Your task to perform on an android device: find which apps use the phone's location Image 0: 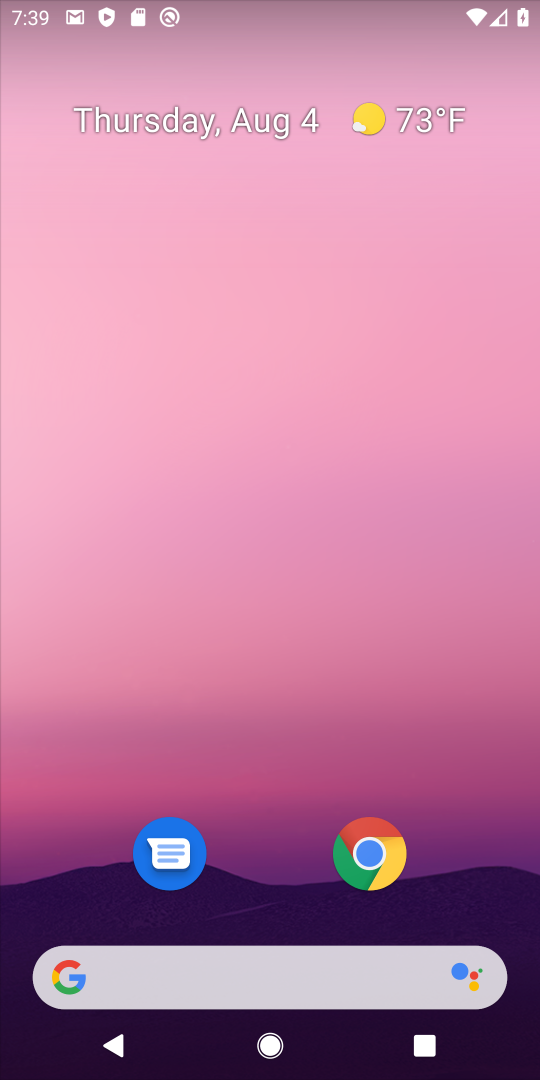
Step 0: drag from (299, 803) to (299, 365)
Your task to perform on an android device: find which apps use the phone's location Image 1: 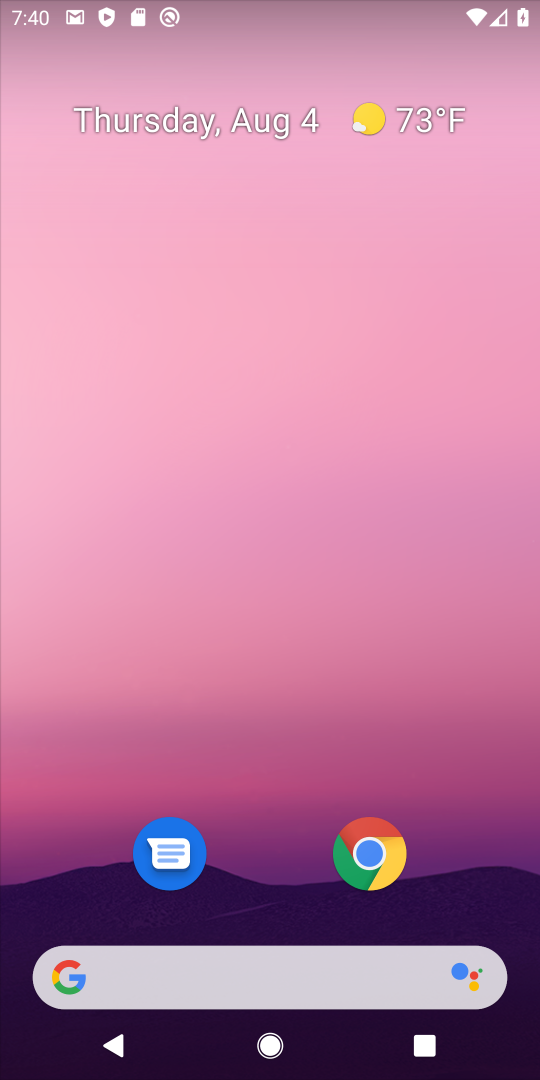
Step 1: drag from (239, 948) to (257, 255)
Your task to perform on an android device: find which apps use the phone's location Image 2: 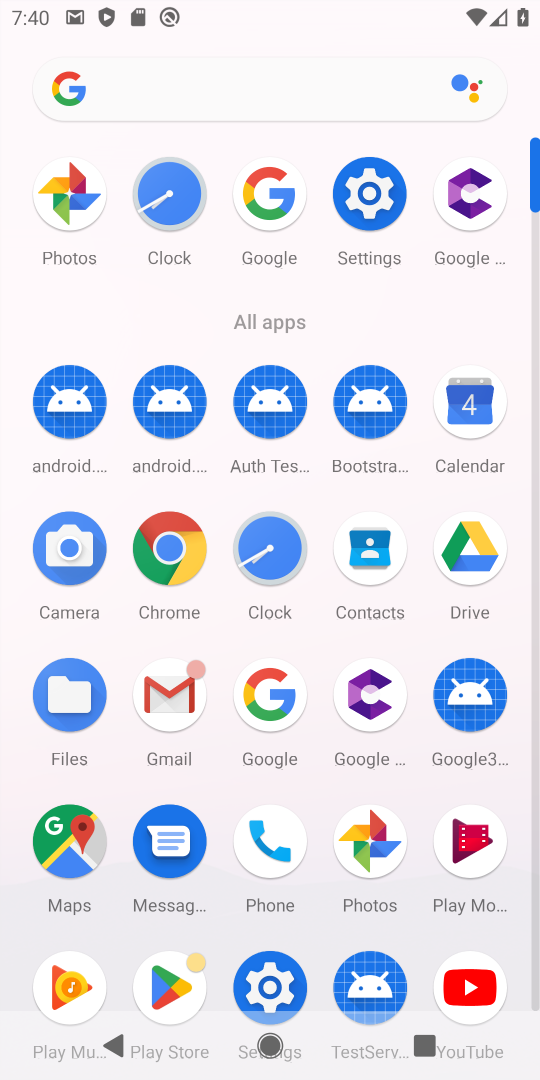
Step 2: click (271, 981)
Your task to perform on an android device: find which apps use the phone's location Image 3: 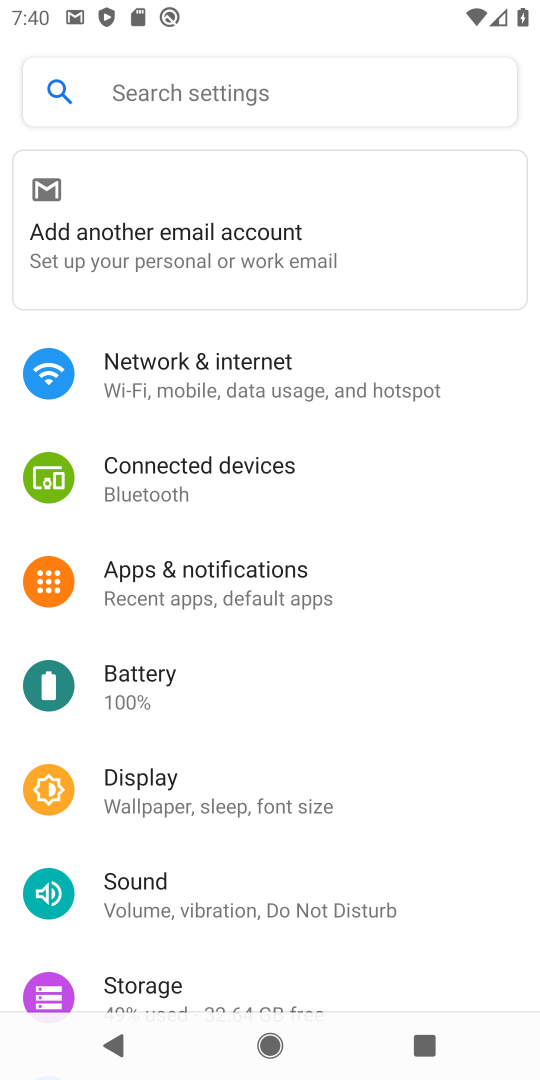
Step 3: drag from (206, 999) to (204, 480)
Your task to perform on an android device: find which apps use the phone's location Image 4: 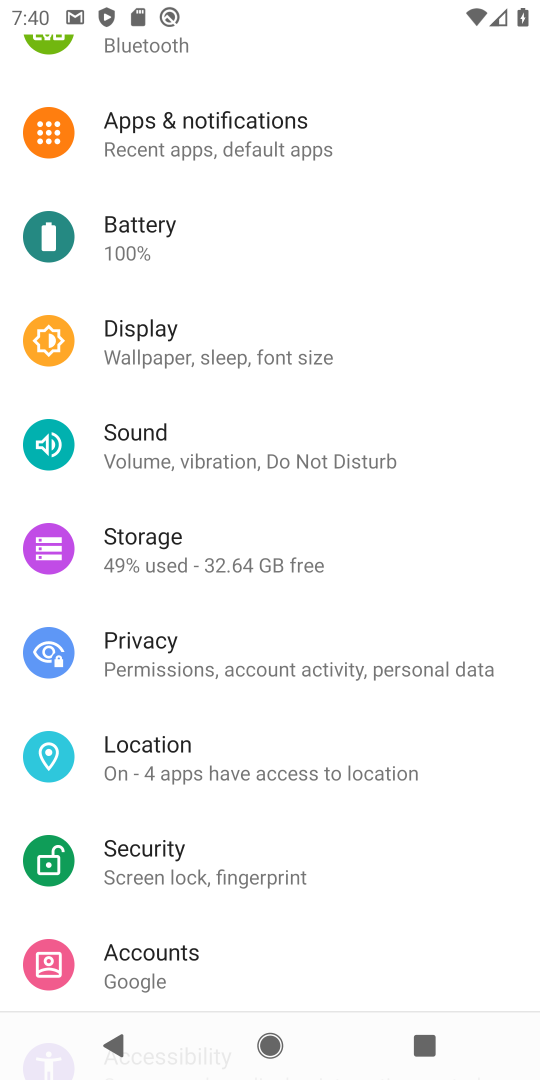
Step 4: click (197, 760)
Your task to perform on an android device: find which apps use the phone's location Image 5: 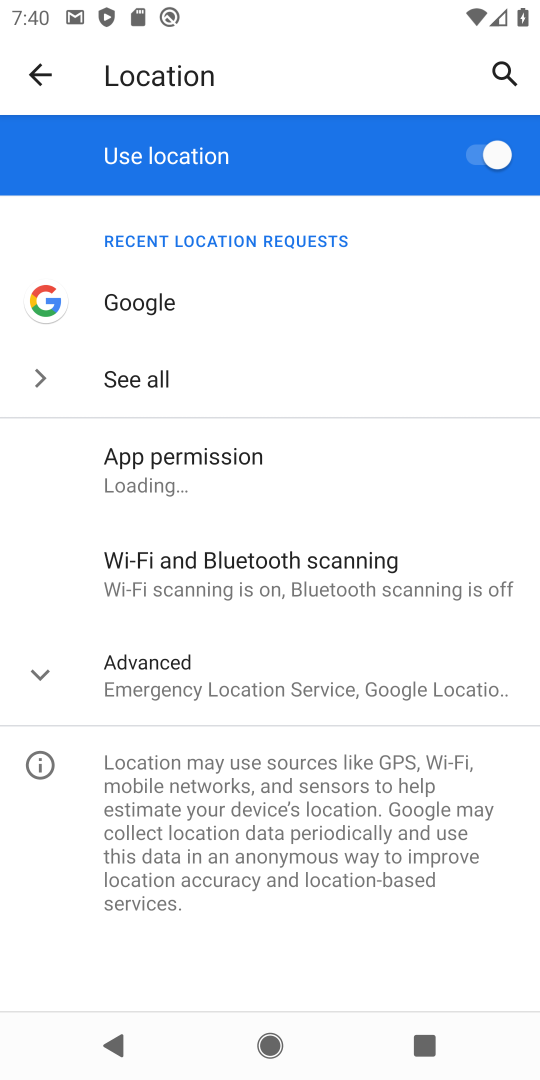
Step 5: click (185, 462)
Your task to perform on an android device: find which apps use the phone's location Image 6: 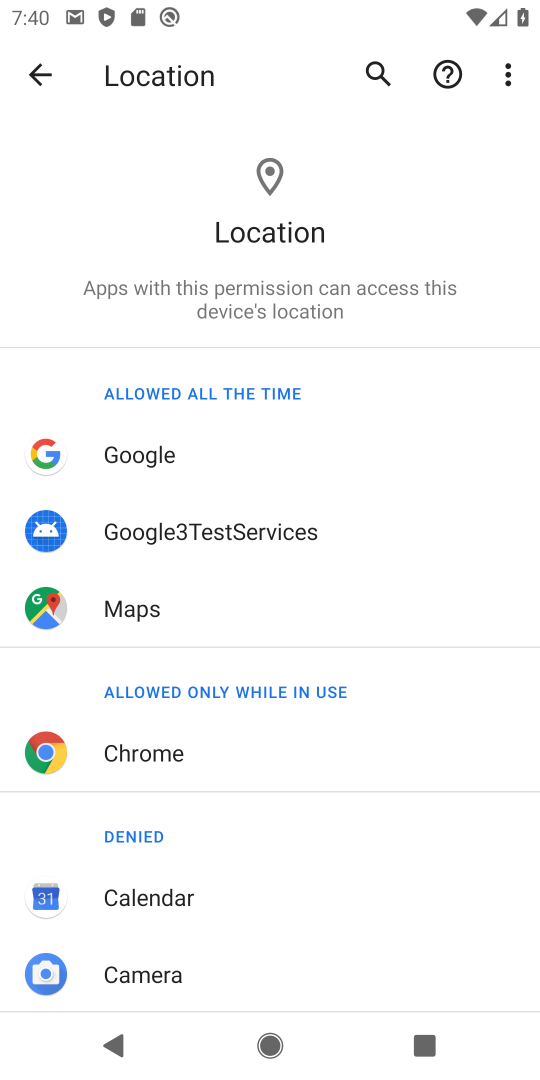
Step 6: task complete